Your task to perform on an android device: Open Google Image 0: 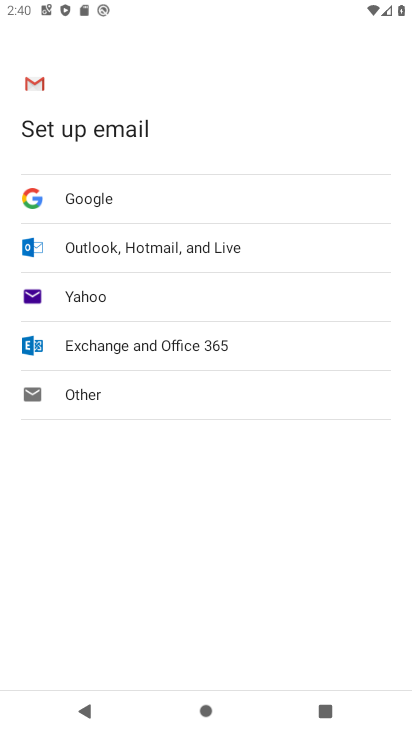
Step 0: press home button
Your task to perform on an android device: Open Google Image 1: 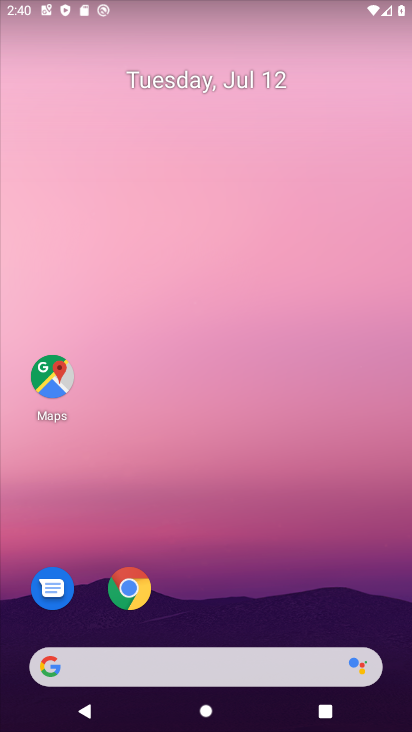
Step 1: drag from (222, 657) to (156, 14)
Your task to perform on an android device: Open Google Image 2: 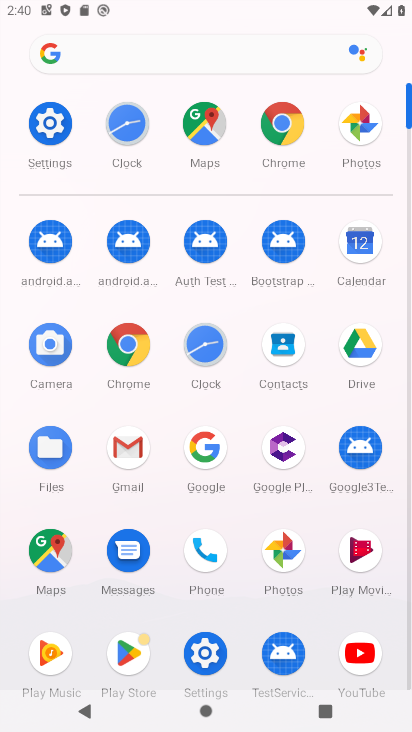
Step 2: click (210, 442)
Your task to perform on an android device: Open Google Image 3: 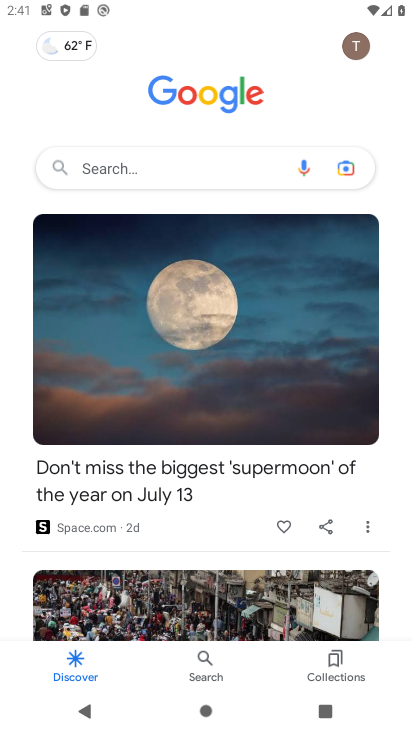
Step 3: task complete